Your task to perform on an android device: Clear the cart on target. Add "logitech g933" to the cart on target, then select checkout. Image 0: 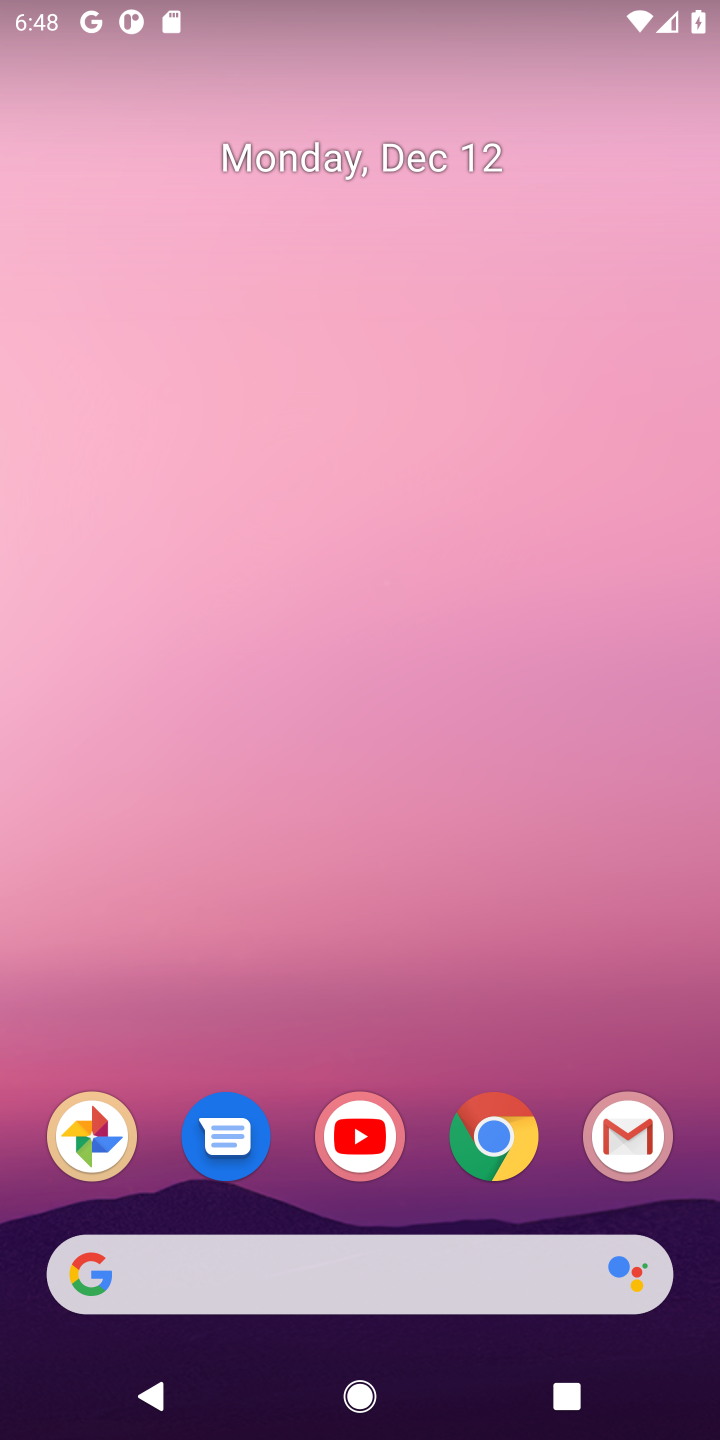
Step 0: click (484, 1139)
Your task to perform on an android device: Clear the cart on target. Add "logitech g933" to the cart on target, then select checkout. Image 1: 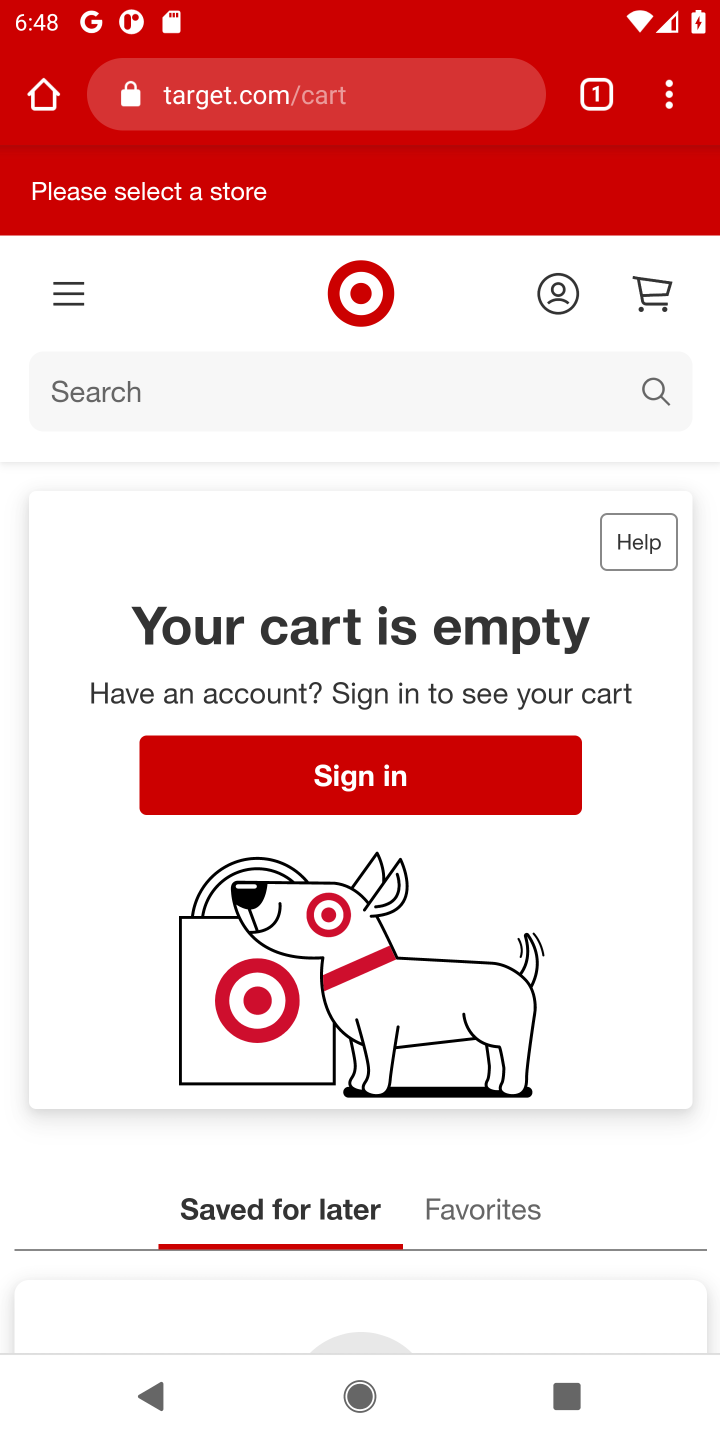
Step 1: click (640, 307)
Your task to perform on an android device: Clear the cart on target. Add "logitech g933" to the cart on target, then select checkout. Image 2: 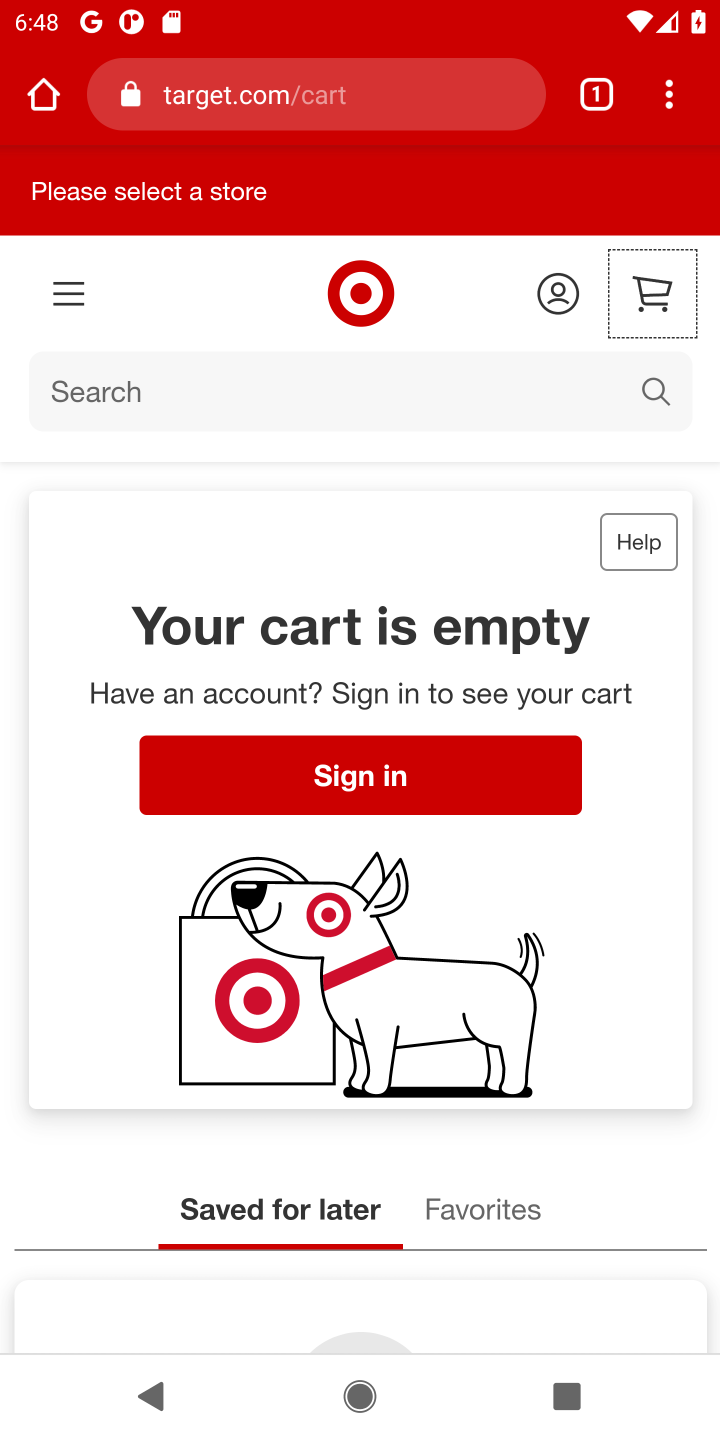
Step 2: click (70, 389)
Your task to perform on an android device: Clear the cart on target. Add "logitech g933" to the cart on target, then select checkout. Image 3: 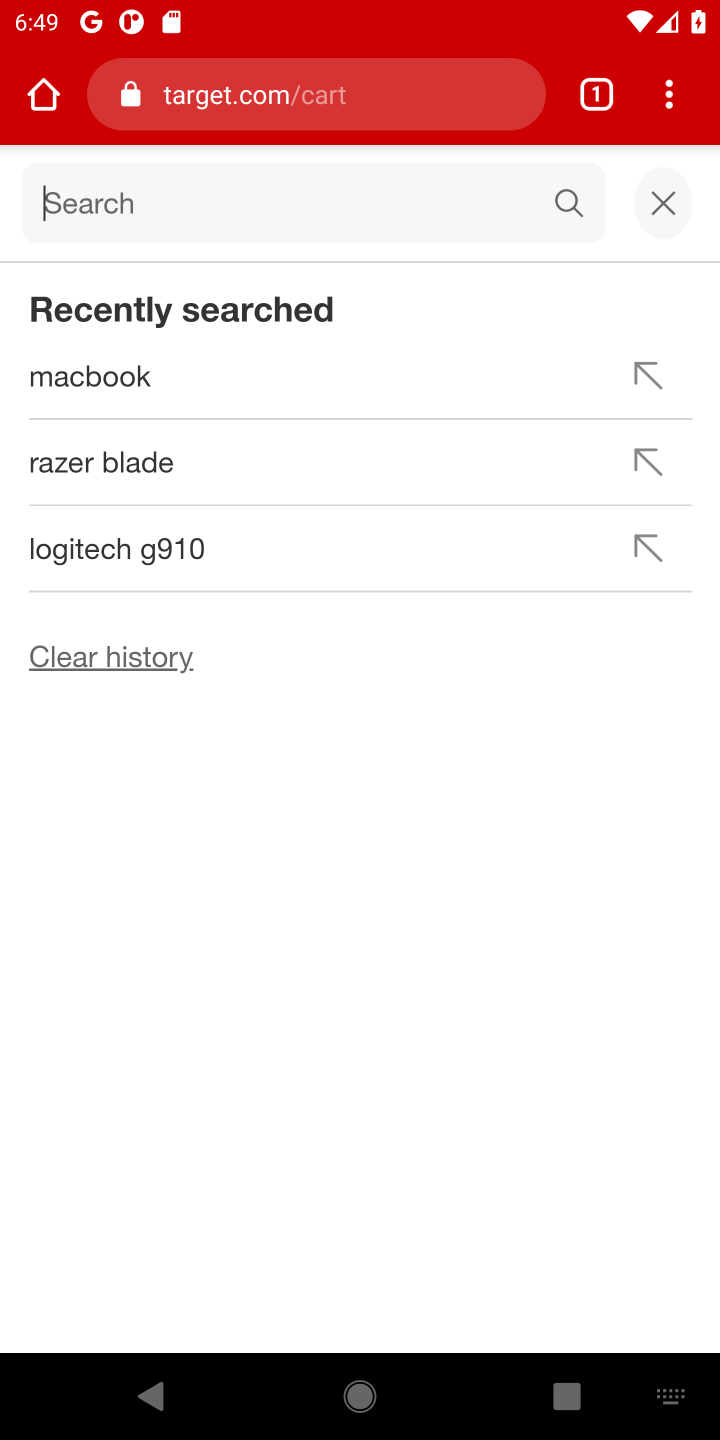
Step 3: type "logitech g933"
Your task to perform on an android device: Clear the cart on target. Add "logitech g933" to the cart on target, then select checkout. Image 4: 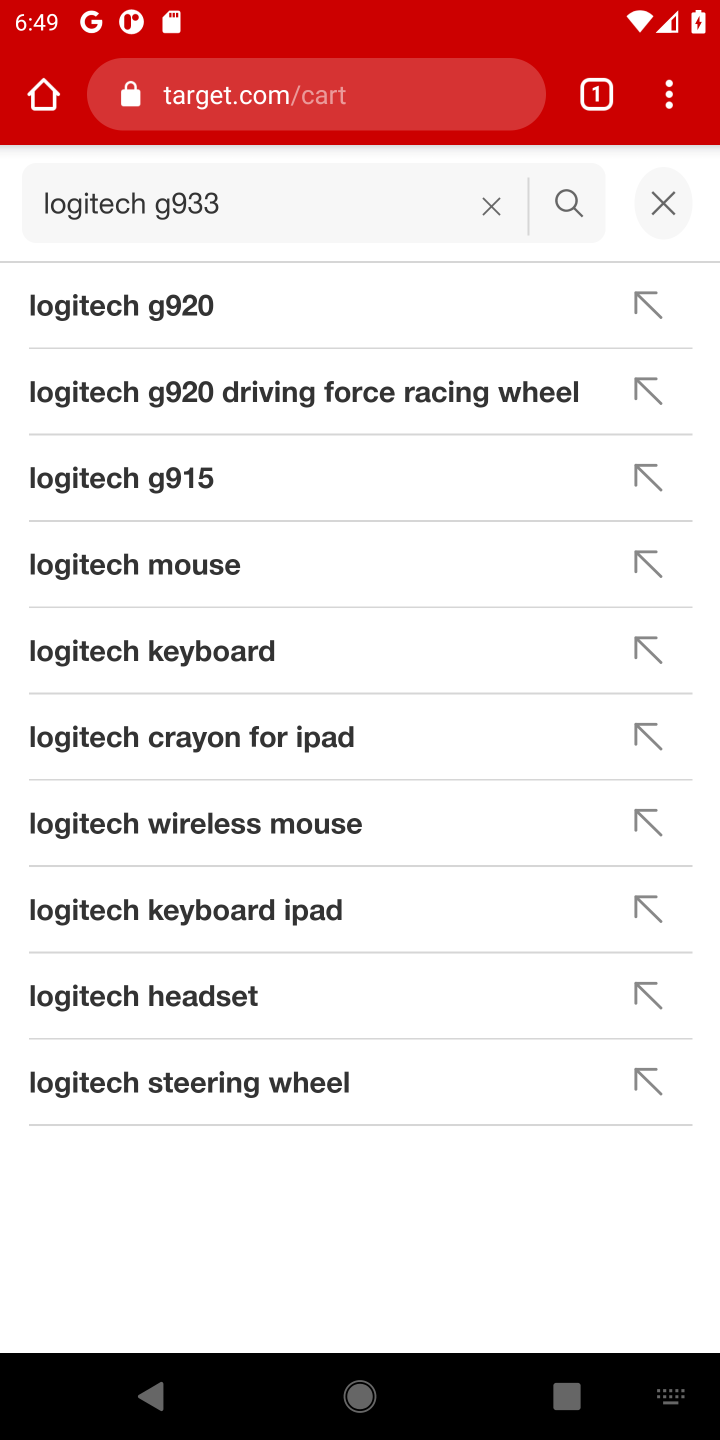
Step 4: click (560, 205)
Your task to perform on an android device: Clear the cart on target. Add "logitech g933" to the cart on target, then select checkout. Image 5: 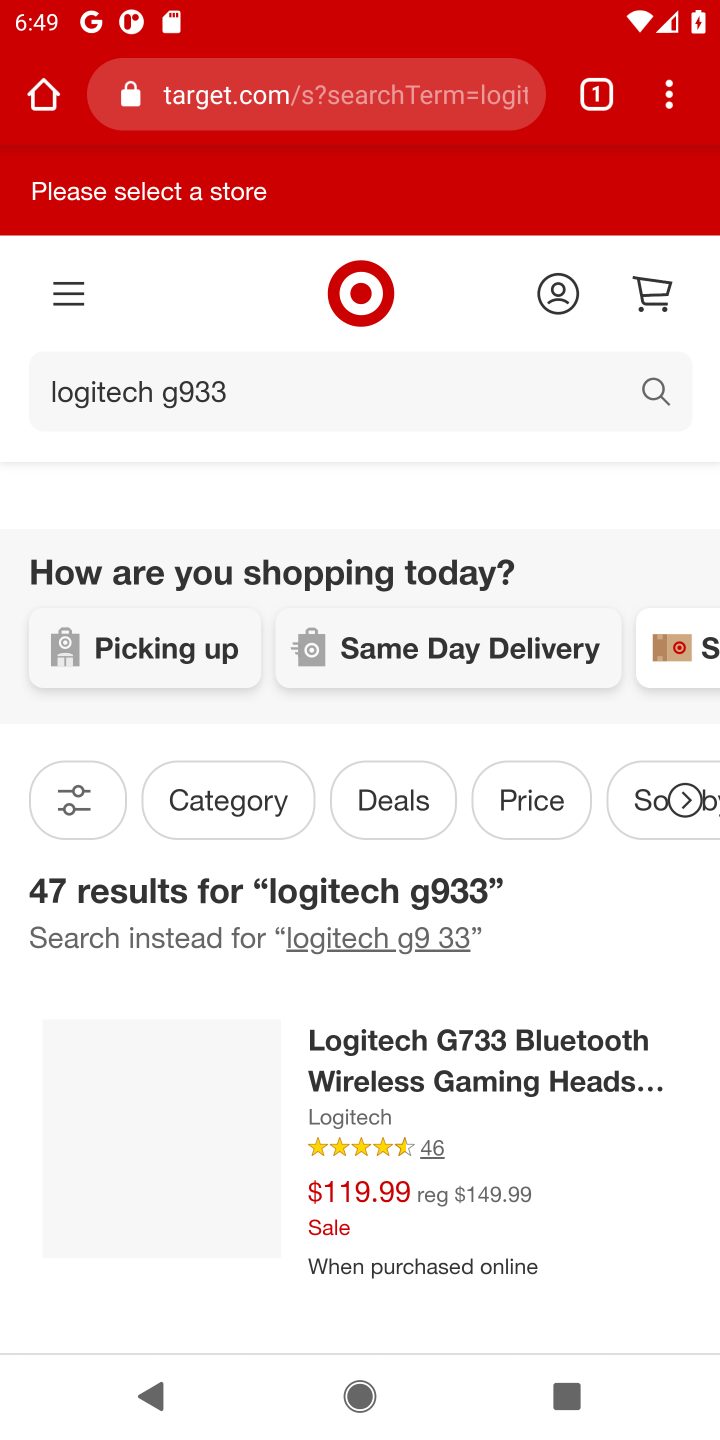
Step 5: task complete